Your task to perform on an android device: View the shopping cart on ebay.com. Search for bose soundsport free on ebay.com, select the first entry, add it to the cart, then select checkout. Image 0: 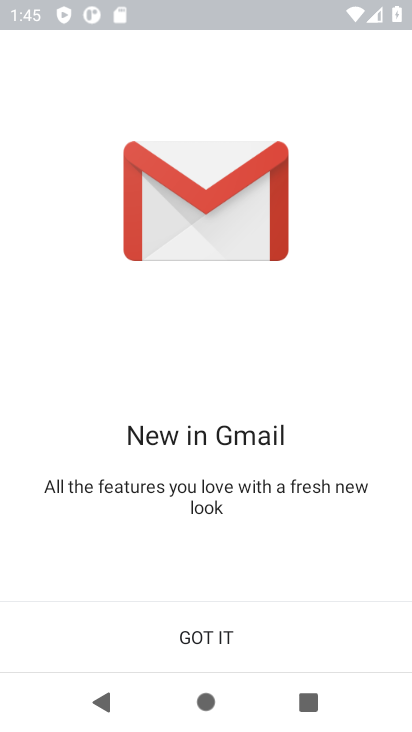
Step 0: press home button
Your task to perform on an android device: View the shopping cart on ebay.com. Search for bose soundsport free on ebay.com, select the first entry, add it to the cart, then select checkout. Image 1: 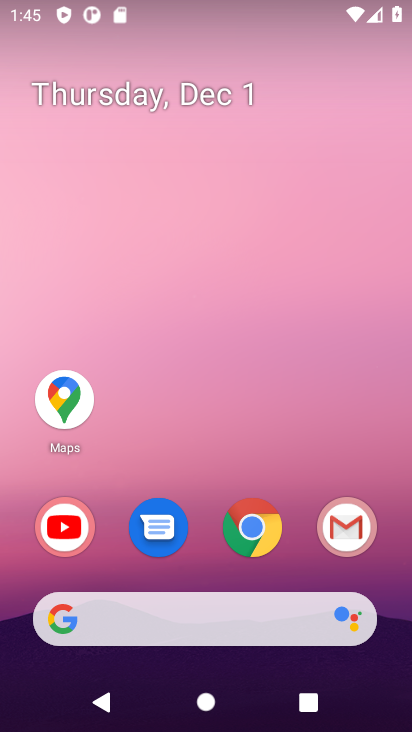
Step 1: click (249, 532)
Your task to perform on an android device: View the shopping cart on ebay.com. Search for bose soundsport free on ebay.com, select the first entry, add it to the cart, then select checkout. Image 2: 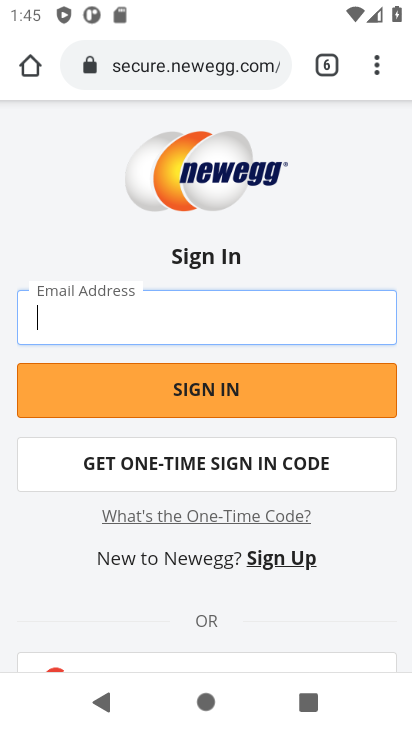
Step 2: click (188, 71)
Your task to perform on an android device: View the shopping cart on ebay.com. Search for bose soundsport free on ebay.com, select the first entry, add it to the cart, then select checkout. Image 3: 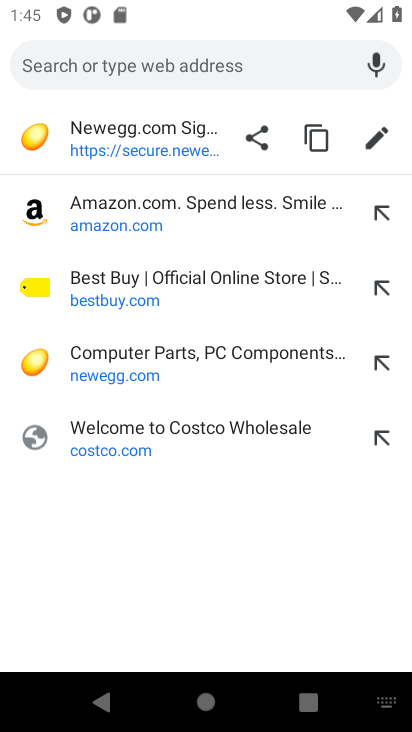
Step 3: type "ebay.com"
Your task to perform on an android device: View the shopping cart on ebay.com. Search for bose soundsport free on ebay.com, select the first entry, add it to the cart, then select checkout. Image 4: 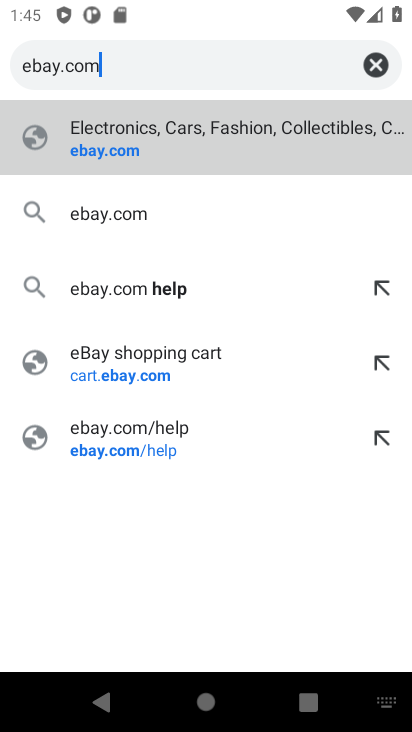
Step 4: click (94, 148)
Your task to perform on an android device: View the shopping cart on ebay.com. Search for bose soundsport free on ebay.com, select the first entry, add it to the cart, then select checkout. Image 5: 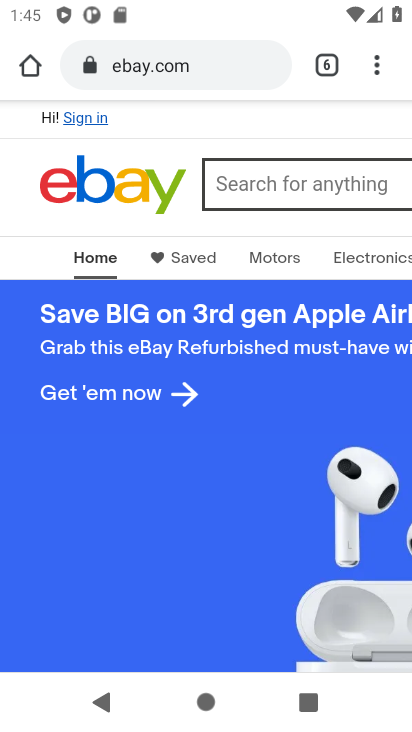
Step 5: drag from (308, 225) to (64, 246)
Your task to perform on an android device: View the shopping cart on ebay.com. Search for bose soundsport free on ebay.com, select the first entry, add it to the cart, then select checkout. Image 6: 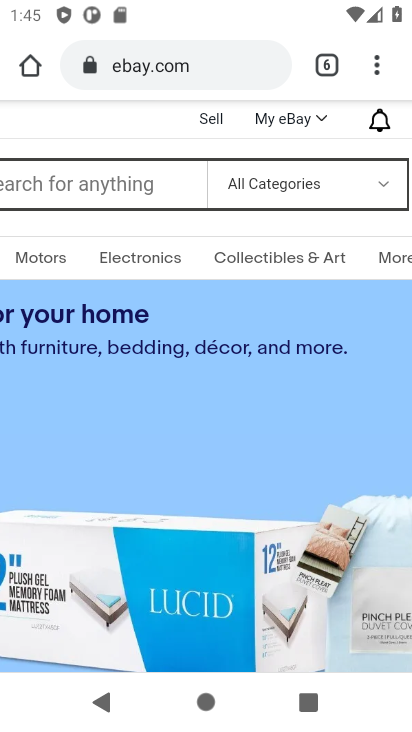
Step 6: drag from (326, 225) to (45, 232)
Your task to perform on an android device: View the shopping cart on ebay.com. Search for bose soundsport free on ebay.com, select the first entry, add it to the cart, then select checkout. Image 7: 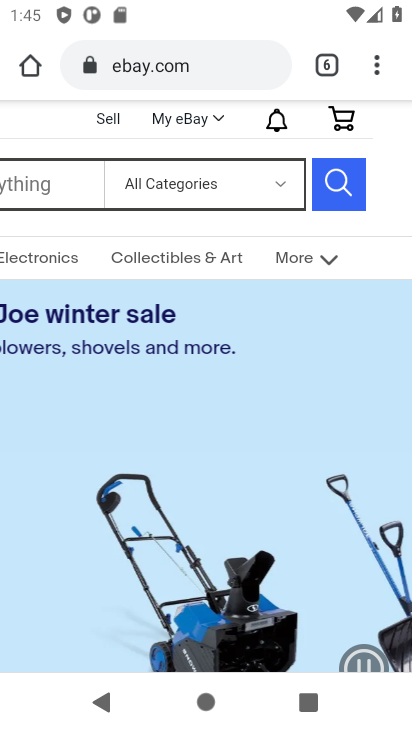
Step 7: click (342, 122)
Your task to perform on an android device: View the shopping cart on ebay.com. Search for bose soundsport free on ebay.com, select the first entry, add it to the cart, then select checkout. Image 8: 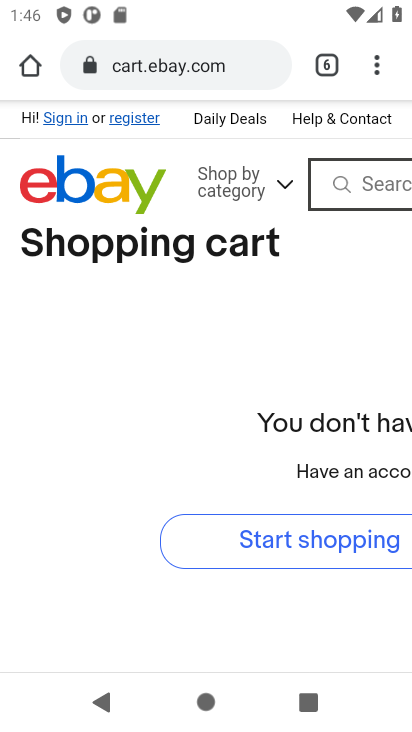
Step 8: click (372, 189)
Your task to perform on an android device: View the shopping cart on ebay.com. Search for bose soundsport free on ebay.com, select the first entry, add it to the cart, then select checkout. Image 9: 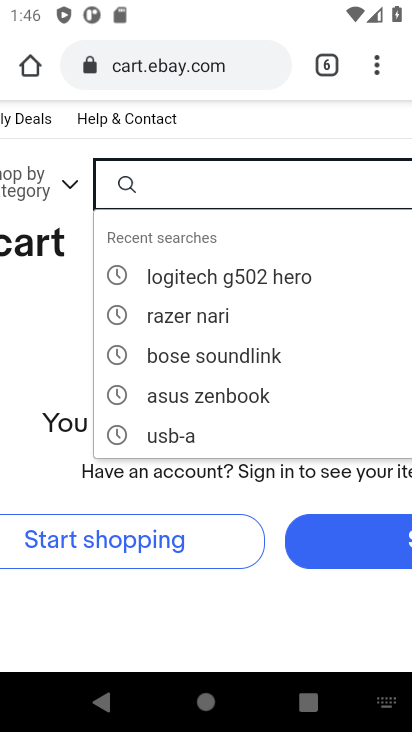
Step 9: type "bose soundsport free"
Your task to perform on an android device: View the shopping cart on ebay.com. Search for bose soundsport free on ebay.com, select the first entry, add it to the cart, then select checkout. Image 10: 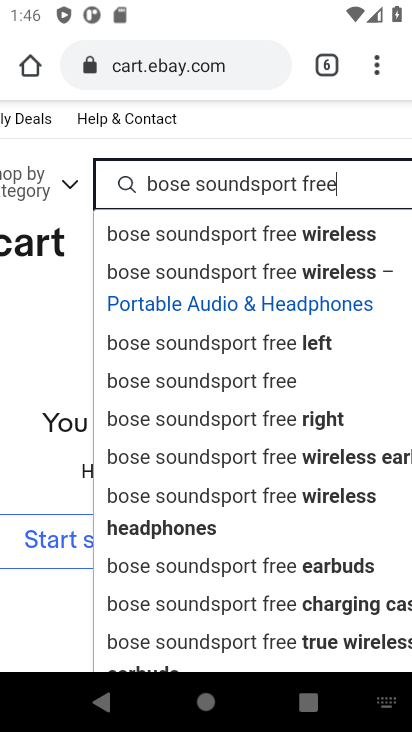
Step 10: click (287, 378)
Your task to perform on an android device: View the shopping cart on ebay.com. Search for bose soundsport free on ebay.com, select the first entry, add it to the cart, then select checkout. Image 11: 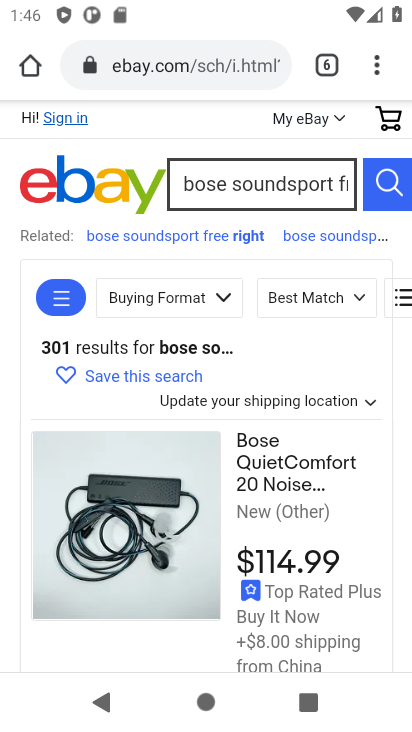
Step 11: task complete